Your task to perform on an android device: Is it going to rain today? Image 0: 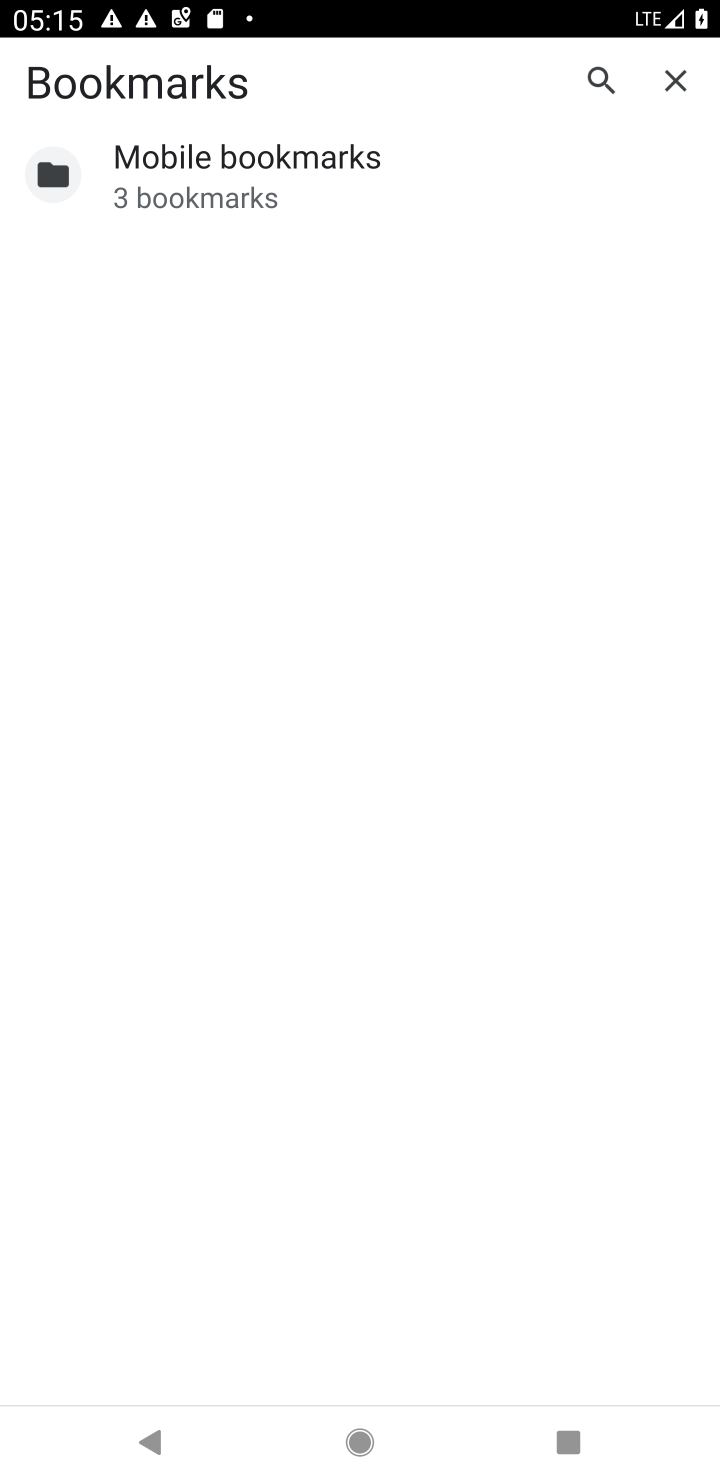
Step 0: press home button
Your task to perform on an android device: Is it going to rain today? Image 1: 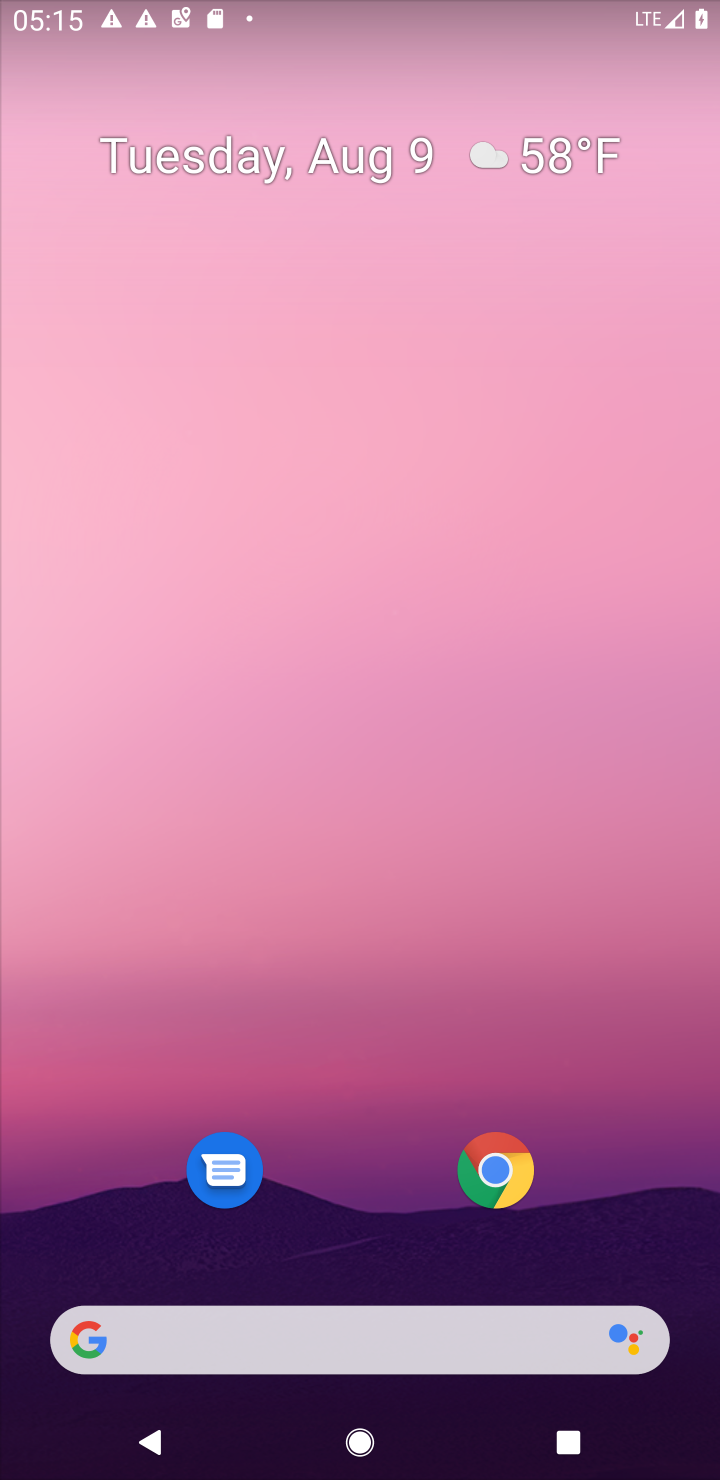
Step 1: click (83, 1340)
Your task to perform on an android device: Is it going to rain today? Image 2: 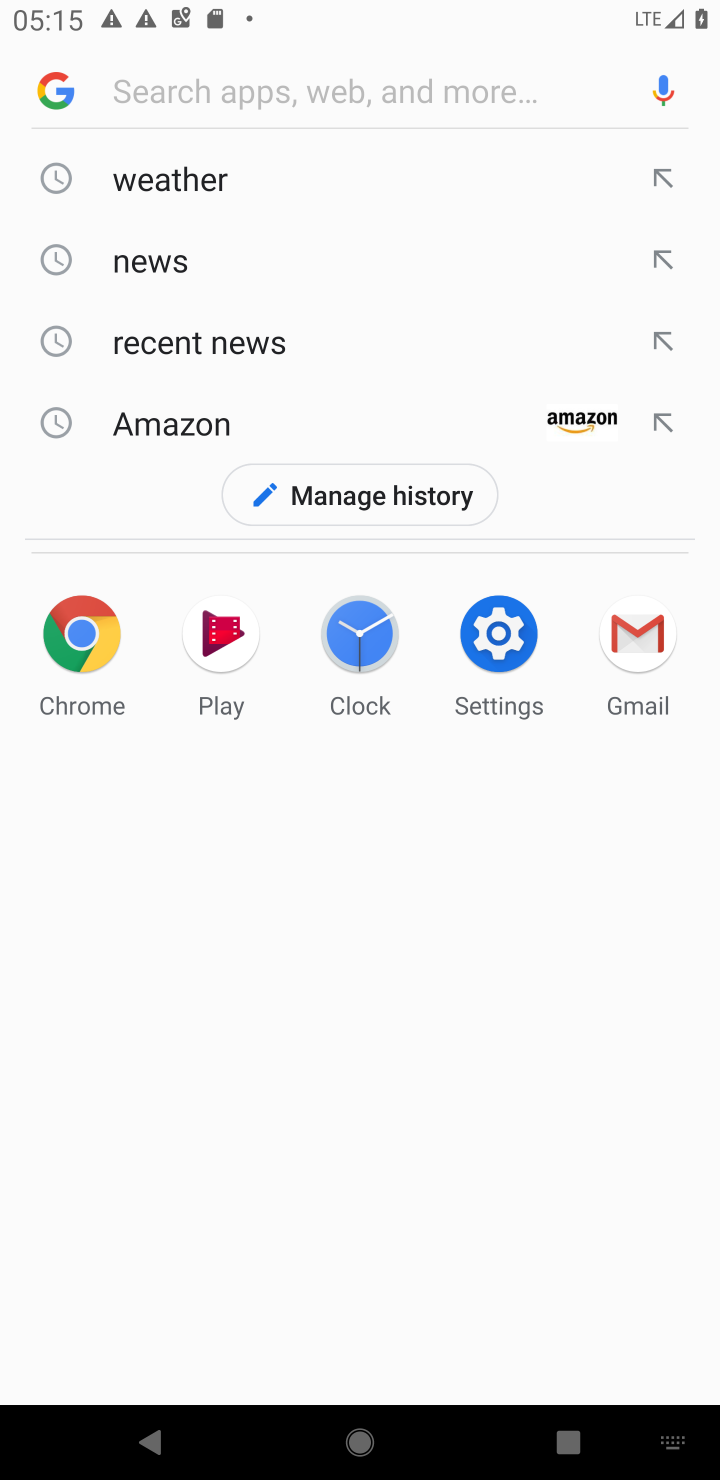
Step 2: type "rain today?"
Your task to perform on an android device: Is it going to rain today? Image 3: 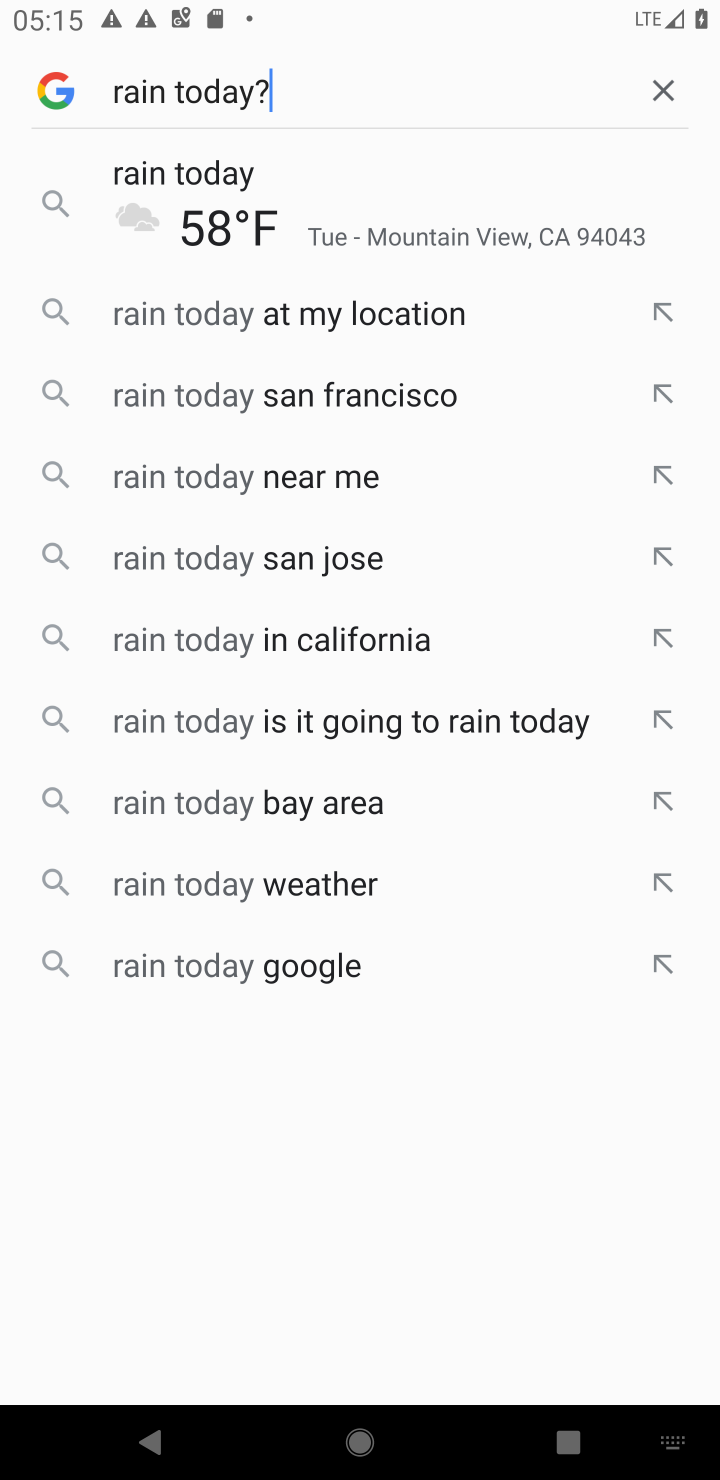
Step 3: press enter
Your task to perform on an android device: Is it going to rain today? Image 4: 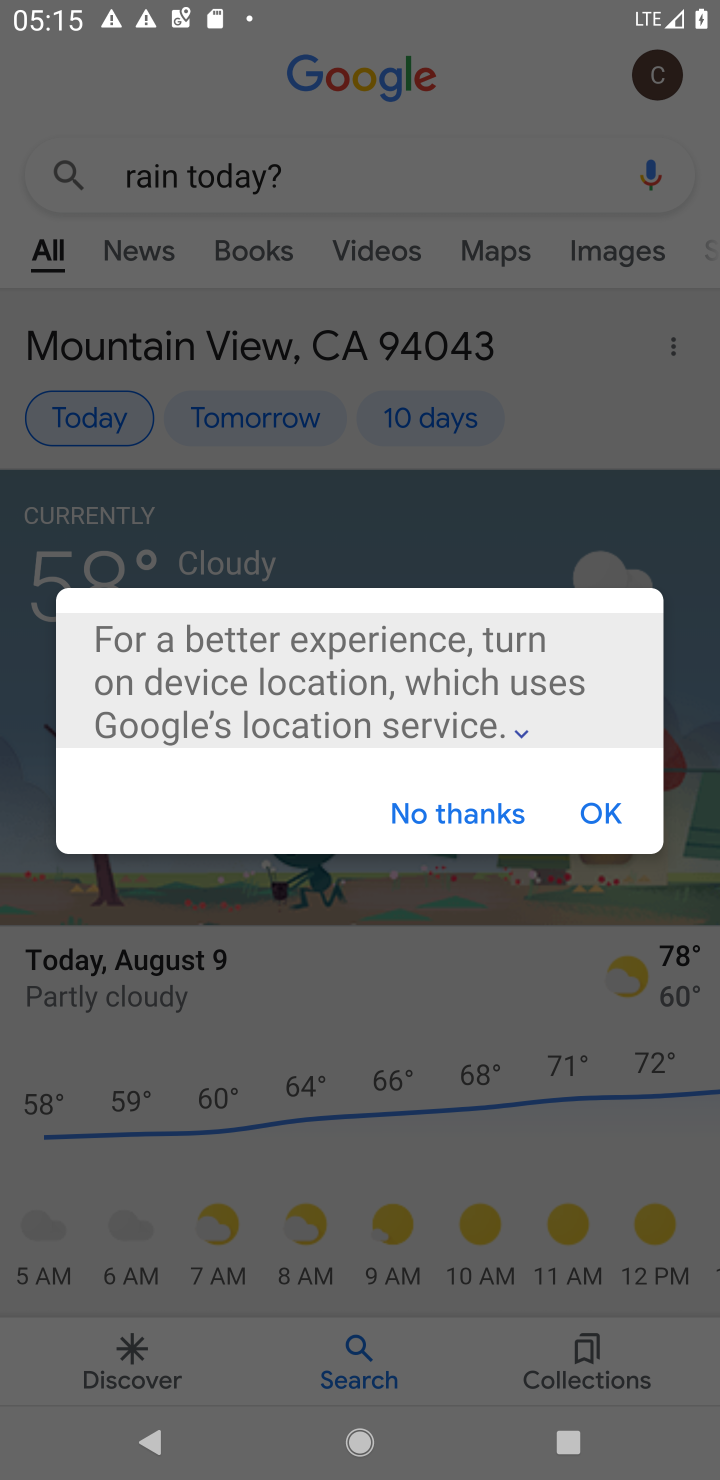
Step 4: click (509, 826)
Your task to perform on an android device: Is it going to rain today? Image 5: 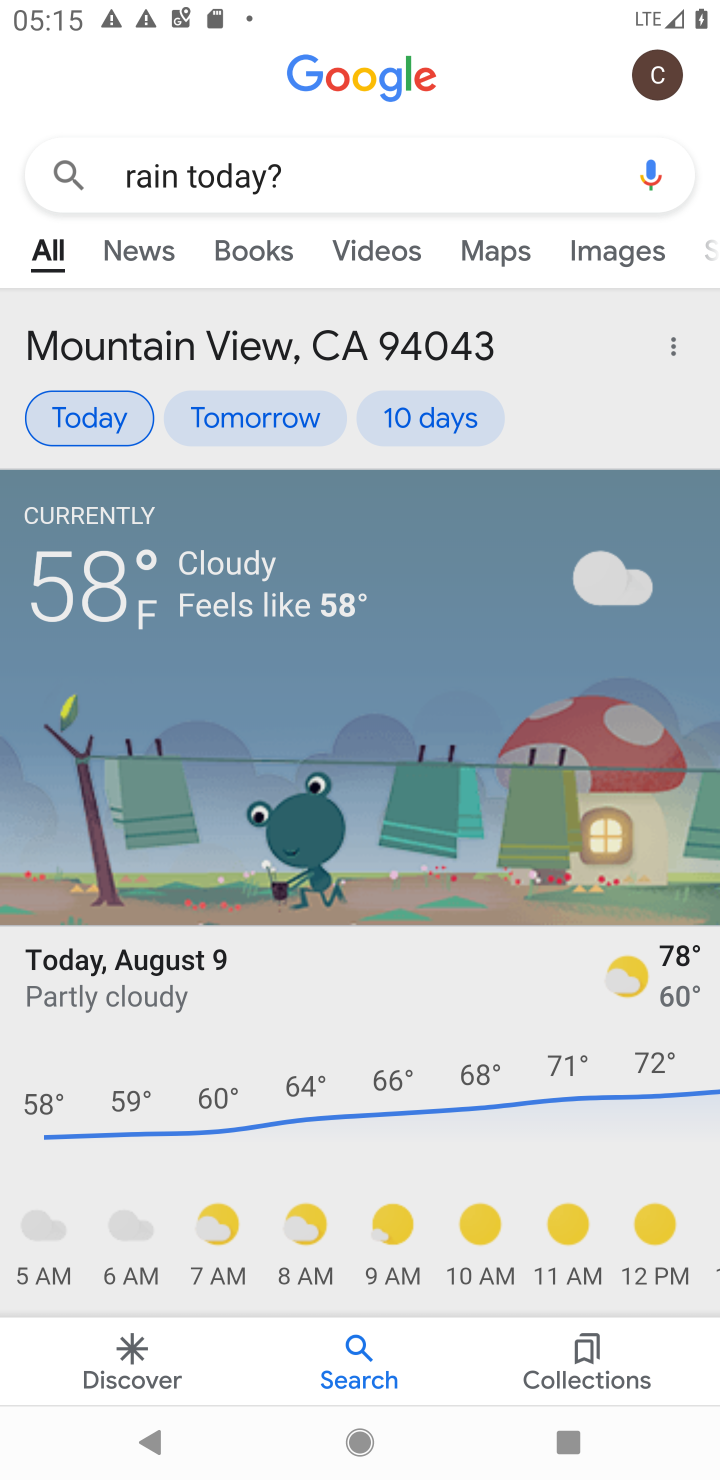
Step 5: task complete